Your task to perform on an android device: see creations saved in the google photos Image 0: 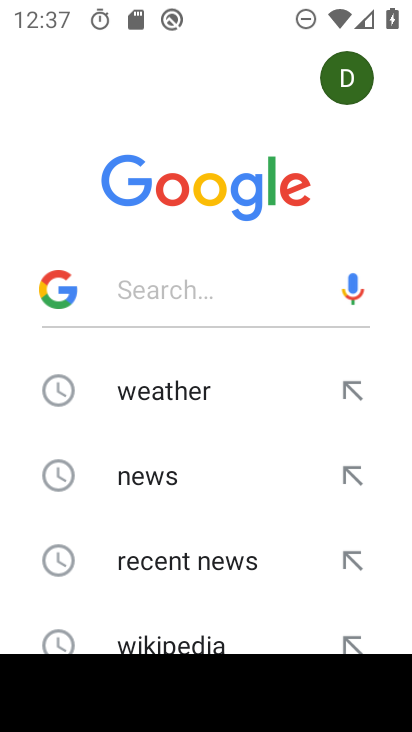
Step 0: press home button
Your task to perform on an android device: see creations saved in the google photos Image 1: 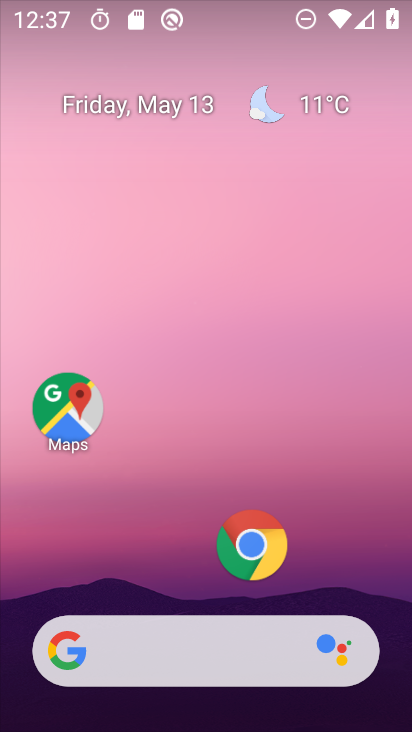
Step 1: drag from (197, 590) to (232, 111)
Your task to perform on an android device: see creations saved in the google photos Image 2: 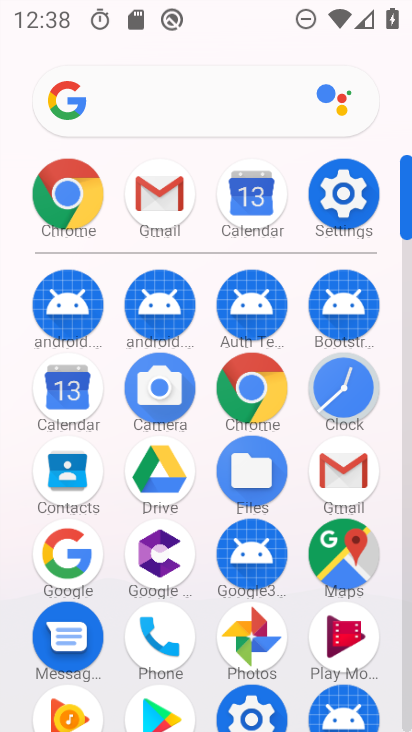
Step 2: click (251, 625)
Your task to perform on an android device: see creations saved in the google photos Image 3: 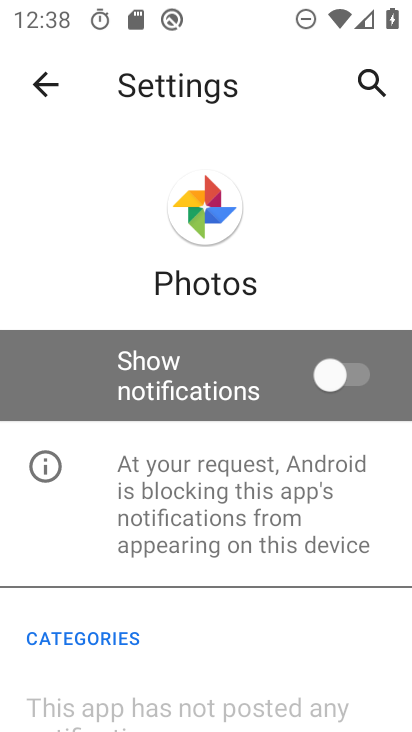
Step 3: click (49, 89)
Your task to perform on an android device: see creations saved in the google photos Image 4: 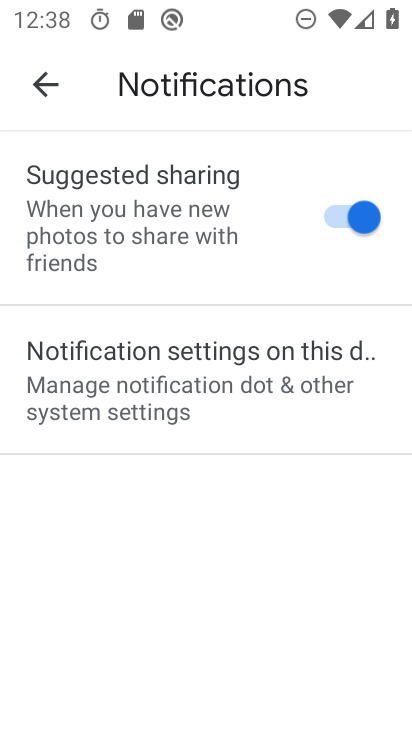
Step 4: click (53, 90)
Your task to perform on an android device: see creations saved in the google photos Image 5: 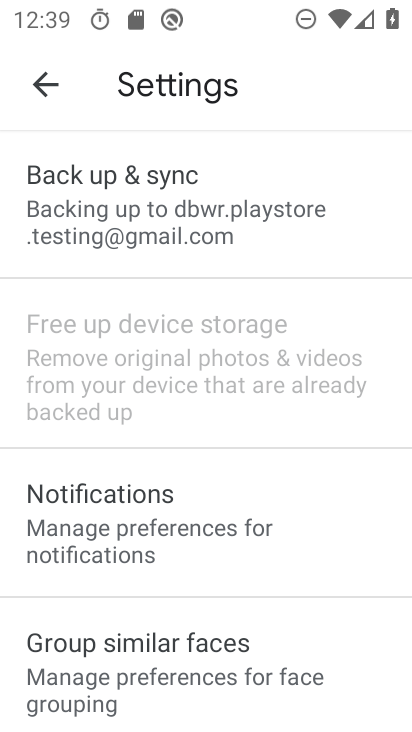
Step 5: click (174, 544)
Your task to perform on an android device: see creations saved in the google photos Image 6: 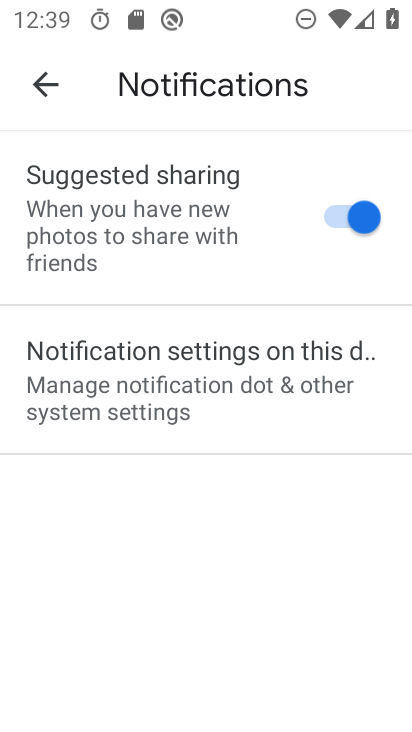
Step 6: click (209, 408)
Your task to perform on an android device: see creations saved in the google photos Image 7: 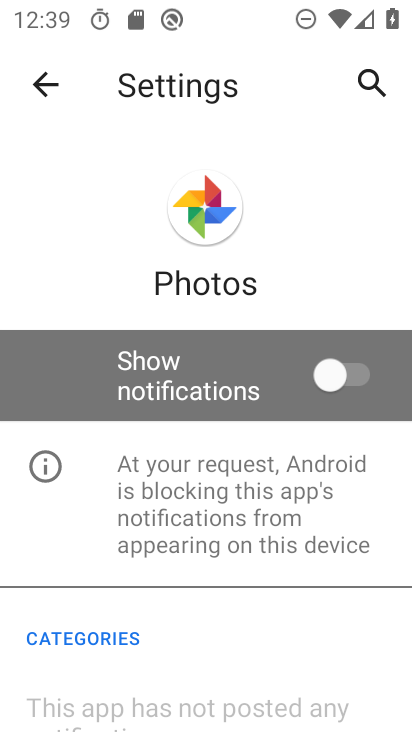
Step 7: click (44, 90)
Your task to perform on an android device: see creations saved in the google photos Image 8: 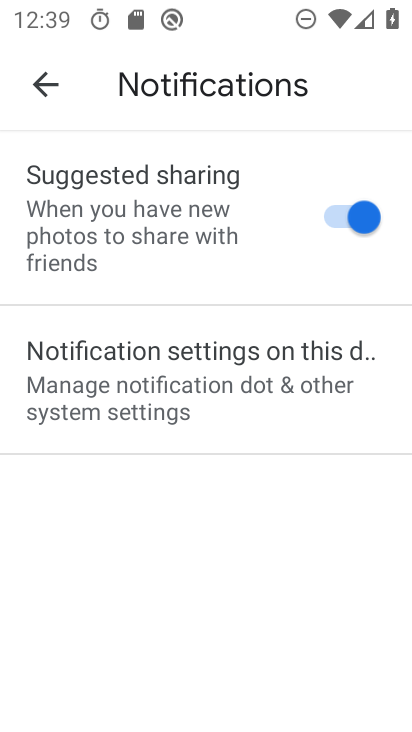
Step 8: click (45, 88)
Your task to perform on an android device: see creations saved in the google photos Image 9: 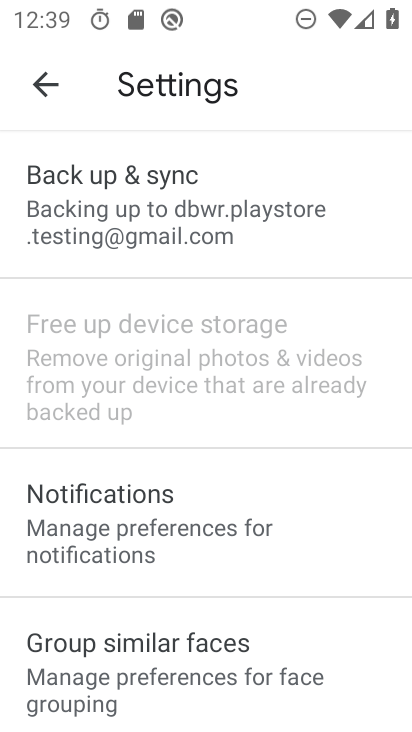
Step 9: click (44, 89)
Your task to perform on an android device: see creations saved in the google photos Image 10: 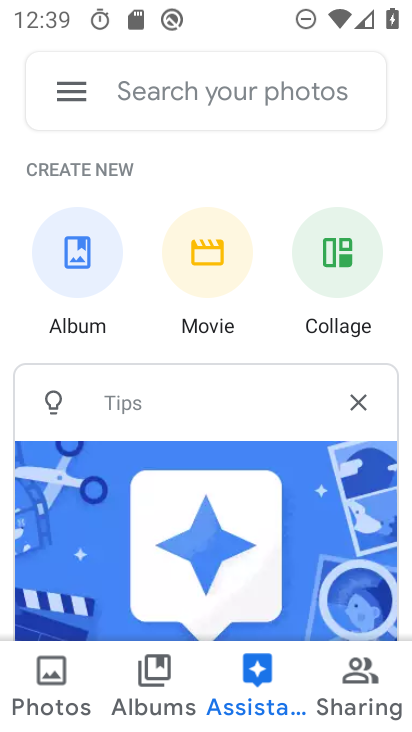
Step 10: click (66, 88)
Your task to perform on an android device: see creations saved in the google photos Image 11: 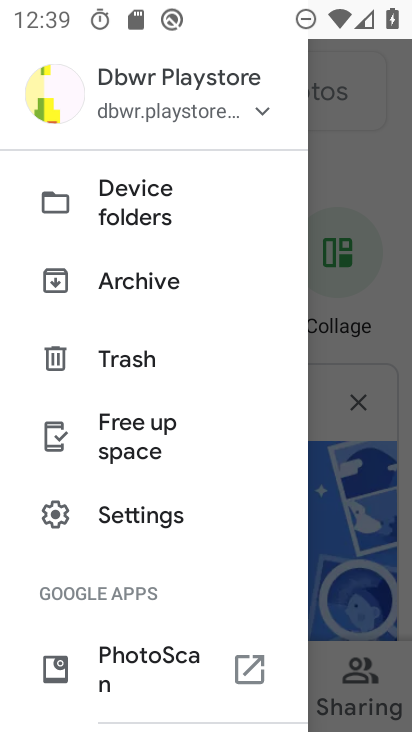
Step 11: click (79, 507)
Your task to perform on an android device: see creations saved in the google photos Image 12: 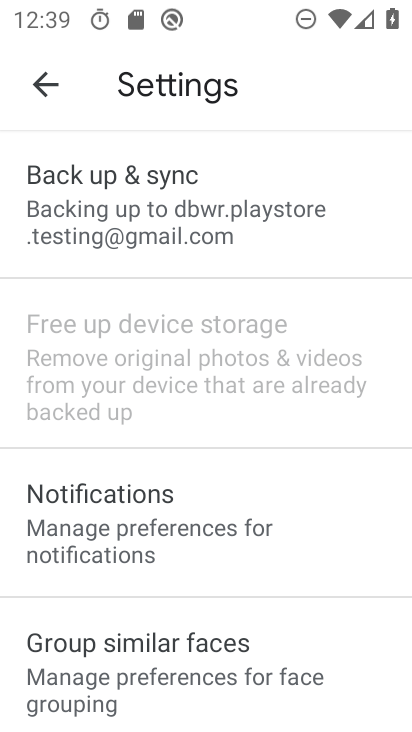
Step 12: click (46, 92)
Your task to perform on an android device: see creations saved in the google photos Image 13: 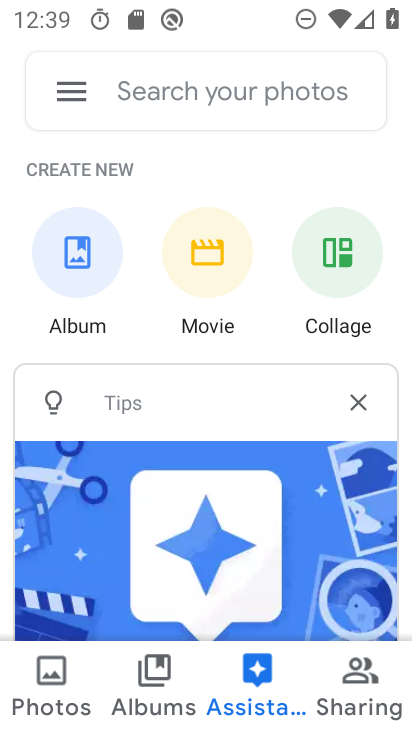
Step 13: click (163, 88)
Your task to perform on an android device: see creations saved in the google photos Image 14: 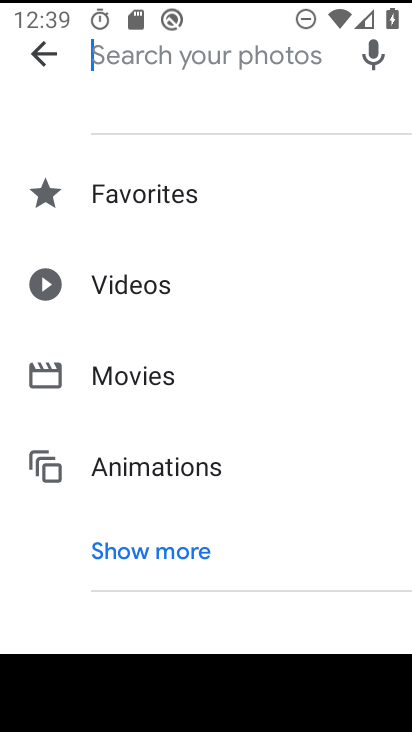
Step 14: click (134, 543)
Your task to perform on an android device: see creations saved in the google photos Image 15: 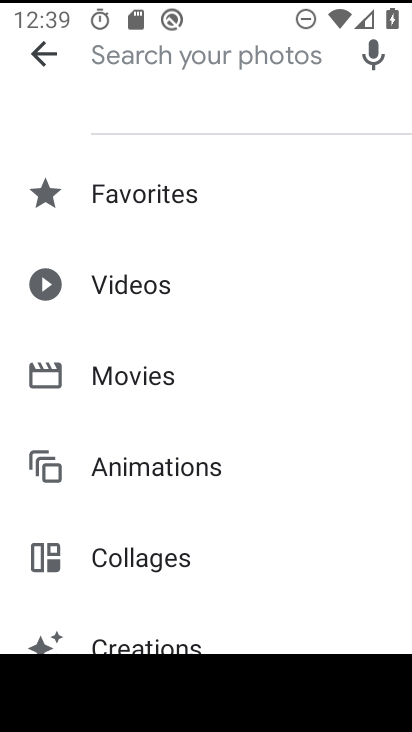
Step 15: click (151, 635)
Your task to perform on an android device: see creations saved in the google photos Image 16: 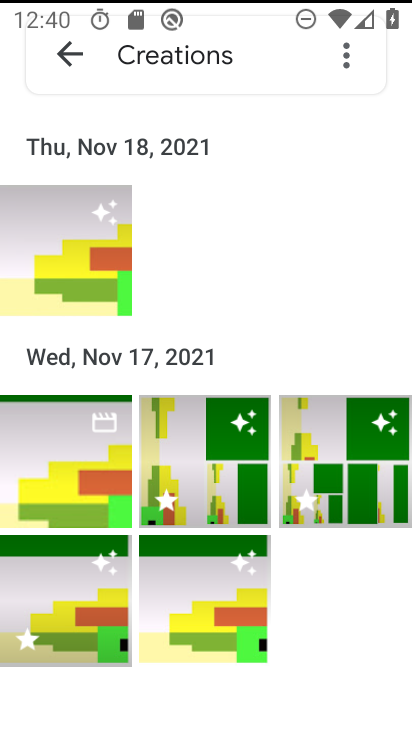
Step 16: task complete